Your task to perform on an android device: clear all cookies in the chrome app Image 0: 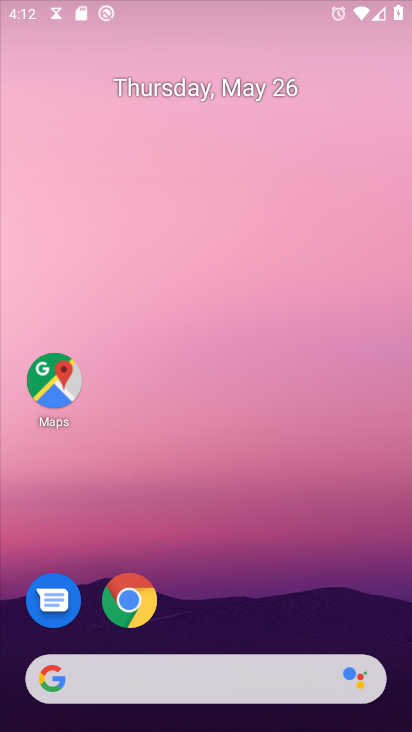
Step 0: drag from (252, 627) to (280, 108)
Your task to perform on an android device: clear all cookies in the chrome app Image 1: 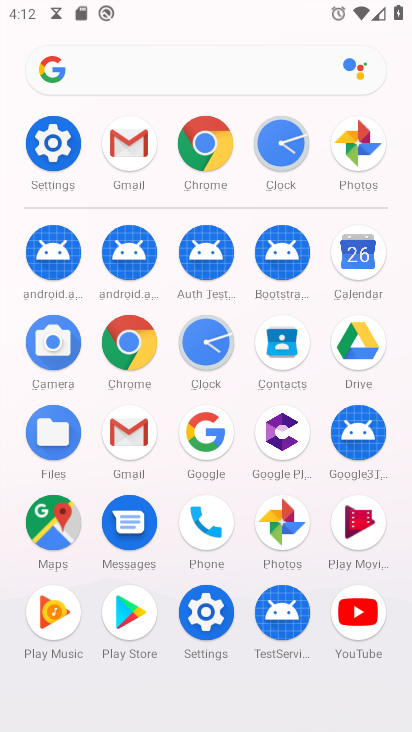
Step 1: click (131, 357)
Your task to perform on an android device: clear all cookies in the chrome app Image 2: 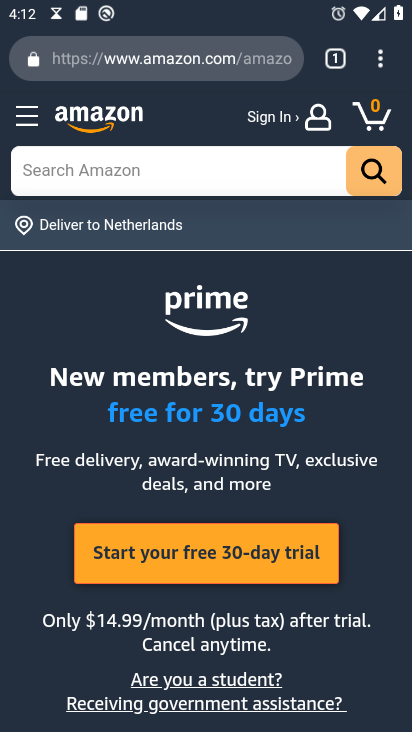
Step 2: click (372, 68)
Your task to perform on an android device: clear all cookies in the chrome app Image 3: 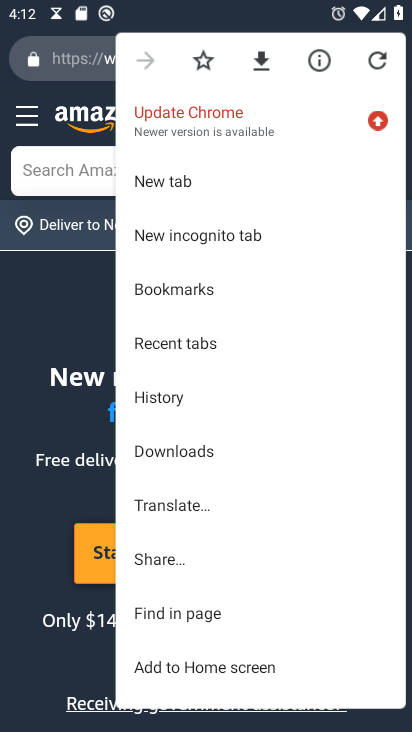
Step 3: click (199, 405)
Your task to perform on an android device: clear all cookies in the chrome app Image 4: 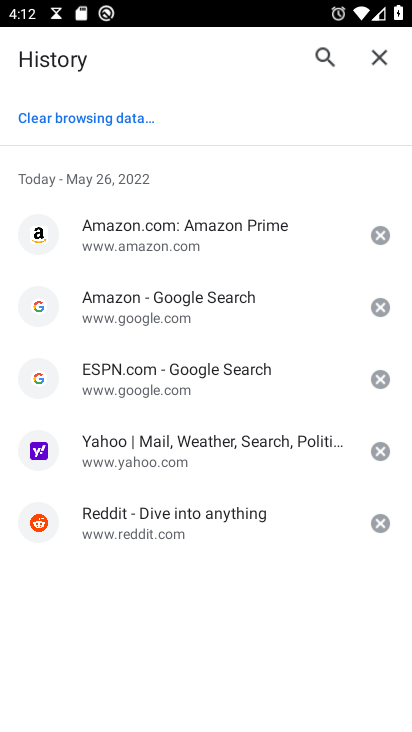
Step 4: click (88, 118)
Your task to perform on an android device: clear all cookies in the chrome app Image 5: 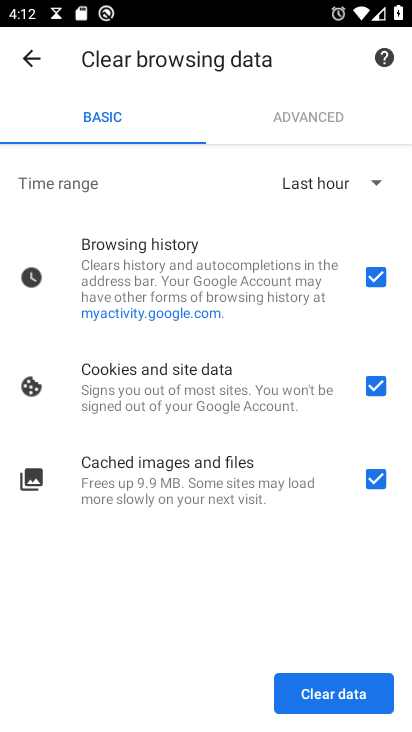
Step 5: click (379, 265)
Your task to perform on an android device: clear all cookies in the chrome app Image 6: 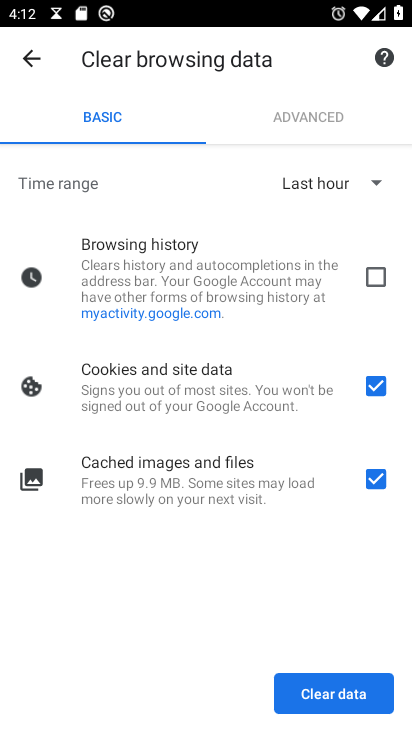
Step 6: click (388, 486)
Your task to perform on an android device: clear all cookies in the chrome app Image 7: 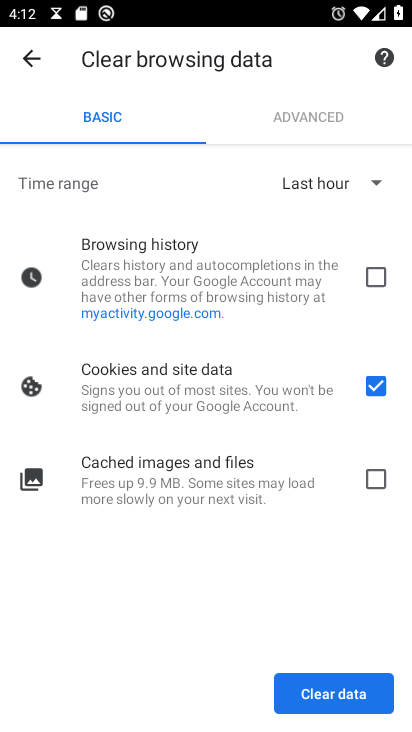
Step 7: click (330, 699)
Your task to perform on an android device: clear all cookies in the chrome app Image 8: 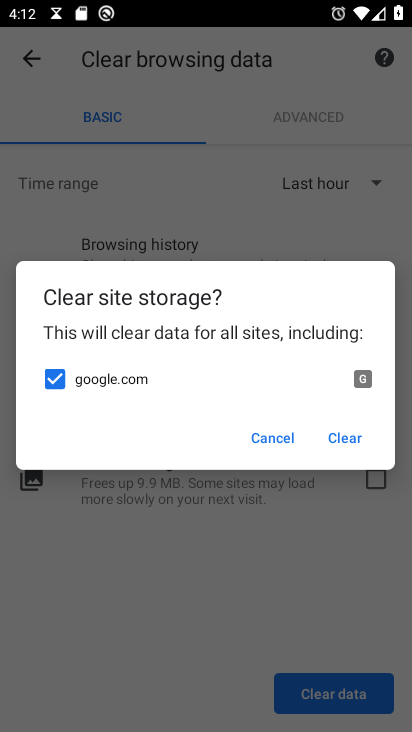
Step 8: click (338, 434)
Your task to perform on an android device: clear all cookies in the chrome app Image 9: 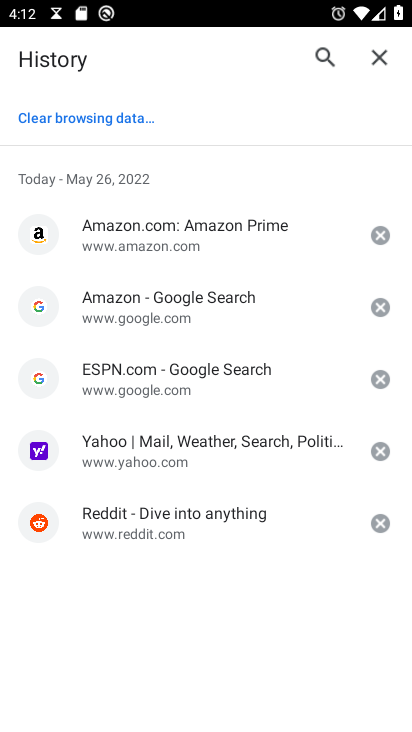
Step 9: task complete